Your task to perform on an android device: Open the web browser Image 0: 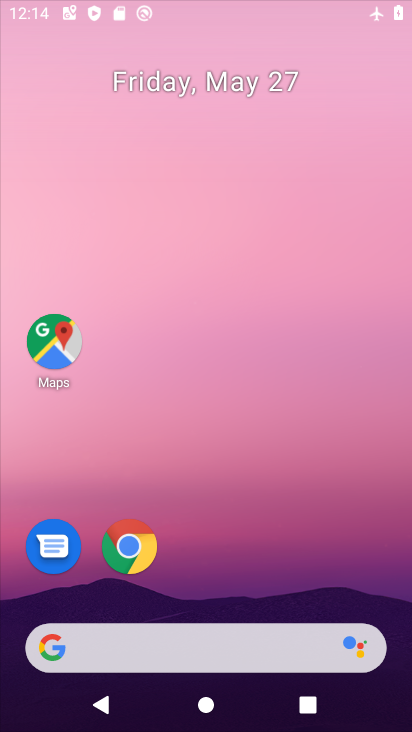
Step 0: drag from (258, 551) to (217, 113)
Your task to perform on an android device: Open the web browser Image 1: 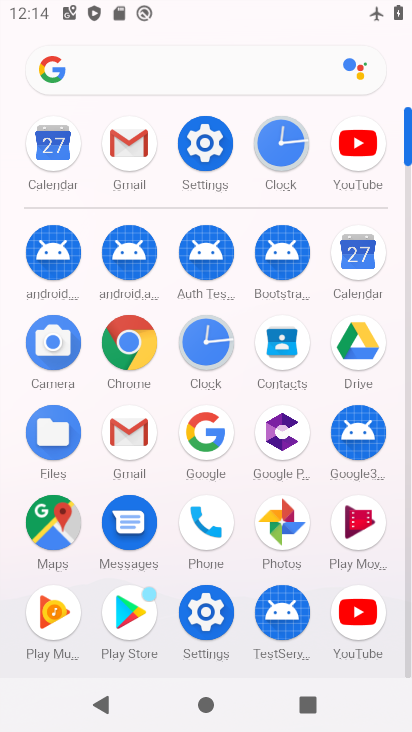
Step 1: click (122, 342)
Your task to perform on an android device: Open the web browser Image 2: 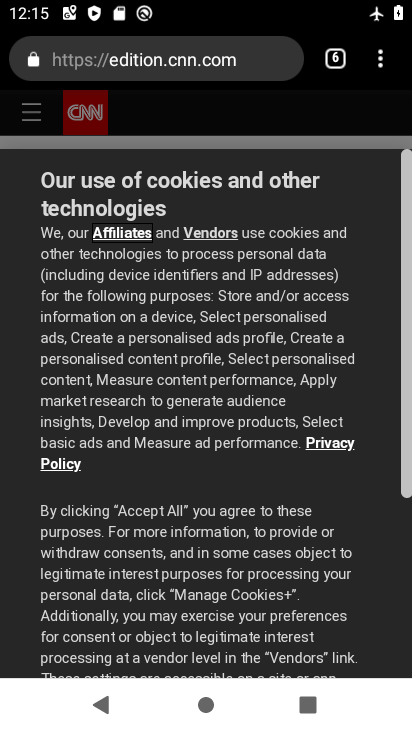
Step 2: task complete